Your task to perform on an android device: toggle improve location accuracy Image 0: 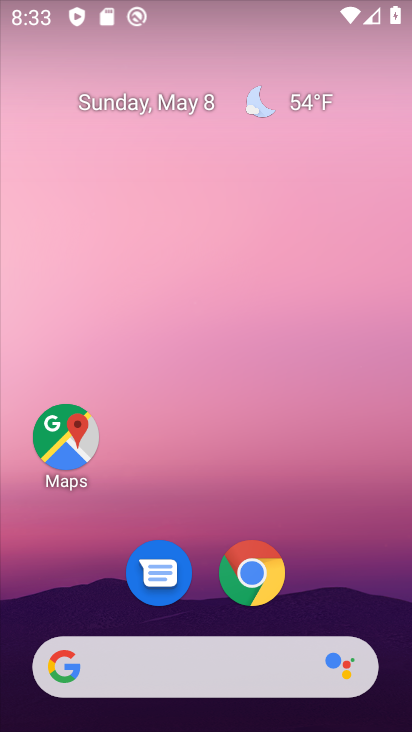
Step 0: drag from (211, 724) to (211, 168)
Your task to perform on an android device: toggle improve location accuracy Image 1: 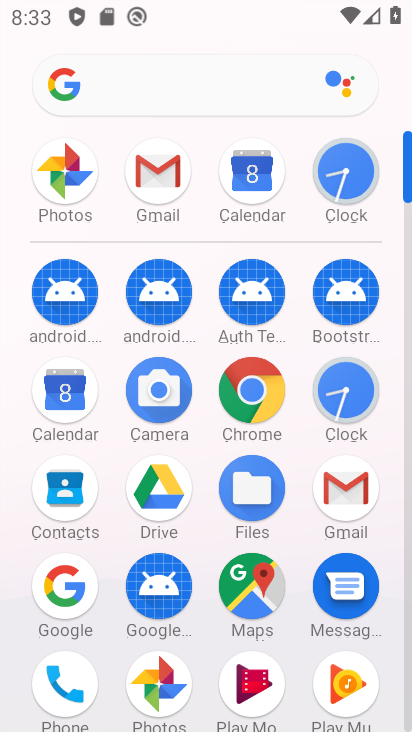
Step 1: drag from (113, 648) to (108, 242)
Your task to perform on an android device: toggle improve location accuracy Image 2: 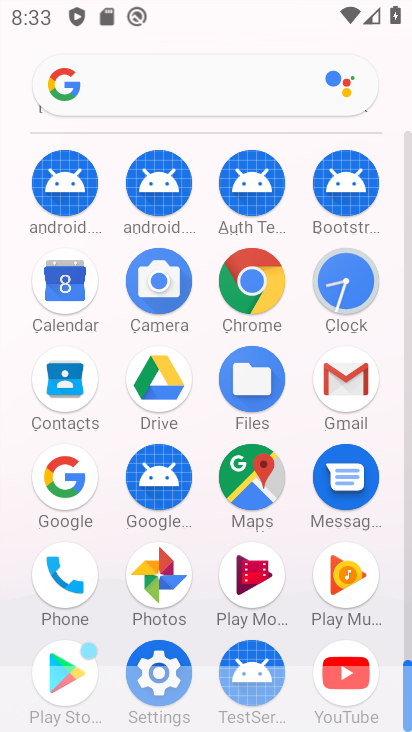
Step 2: click (144, 648)
Your task to perform on an android device: toggle improve location accuracy Image 3: 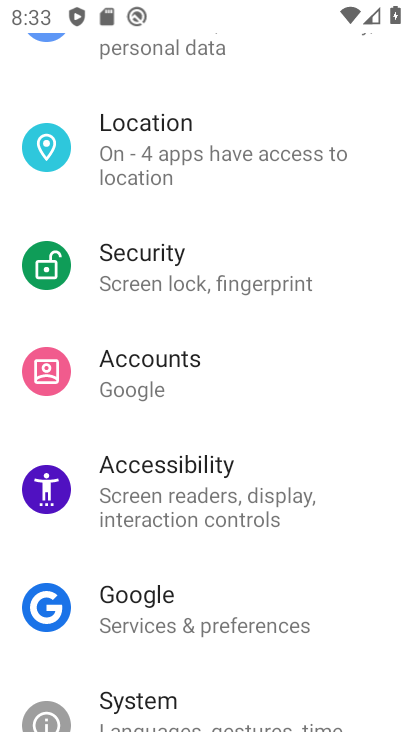
Step 3: drag from (157, 684) to (161, 567)
Your task to perform on an android device: toggle improve location accuracy Image 4: 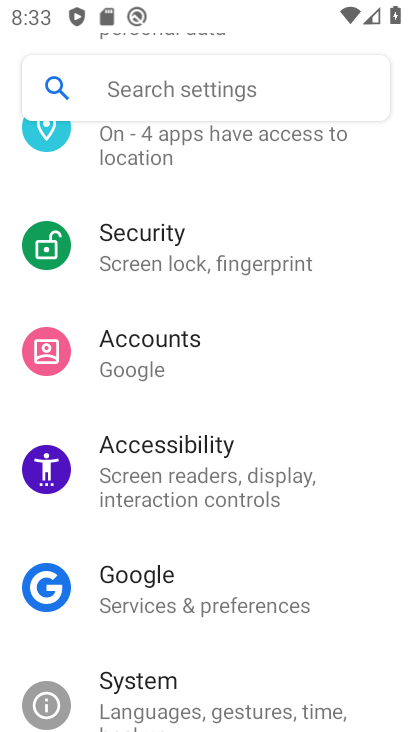
Step 4: drag from (204, 232) to (201, 392)
Your task to perform on an android device: toggle improve location accuracy Image 5: 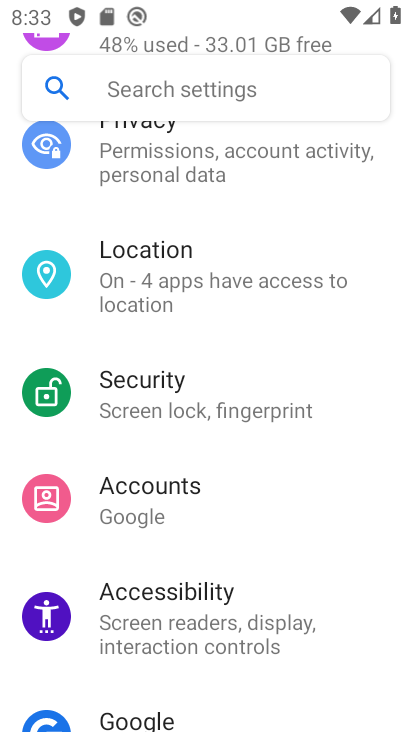
Step 5: click (159, 275)
Your task to perform on an android device: toggle improve location accuracy Image 6: 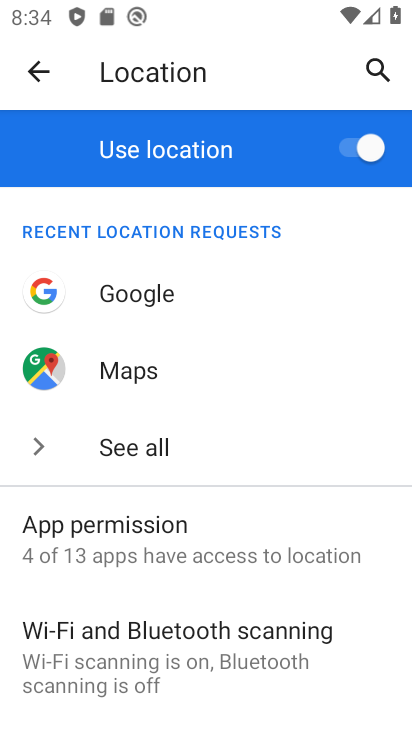
Step 6: drag from (277, 687) to (280, 337)
Your task to perform on an android device: toggle improve location accuracy Image 7: 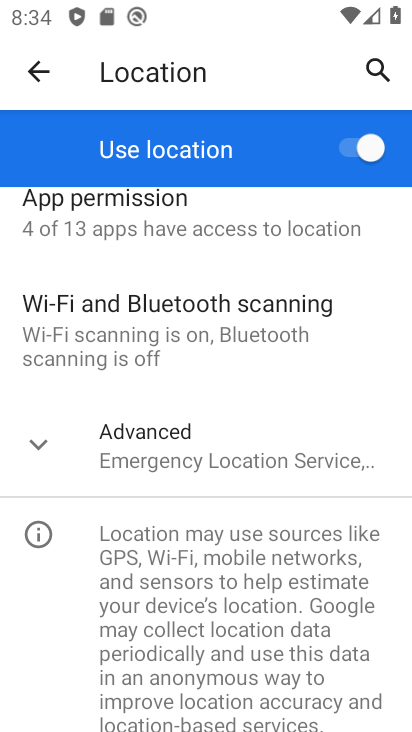
Step 7: click (170, 452)
Your task to perform on an android device: toggle improve location accuracy Image 8: 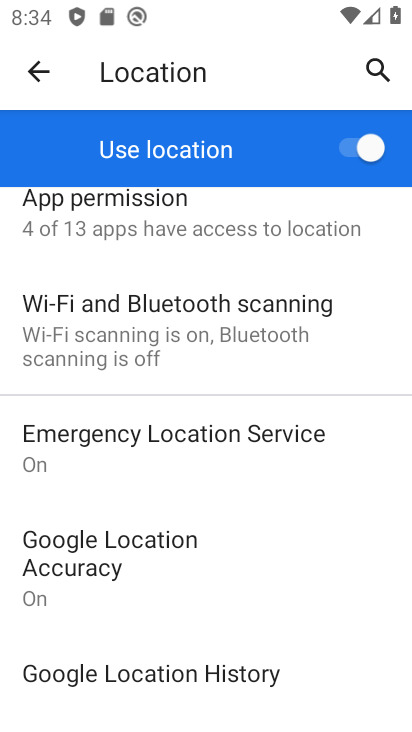
Step 8: click (68, 545)
Your task to perform on an android device: toggle improve location accuracy Image 9: 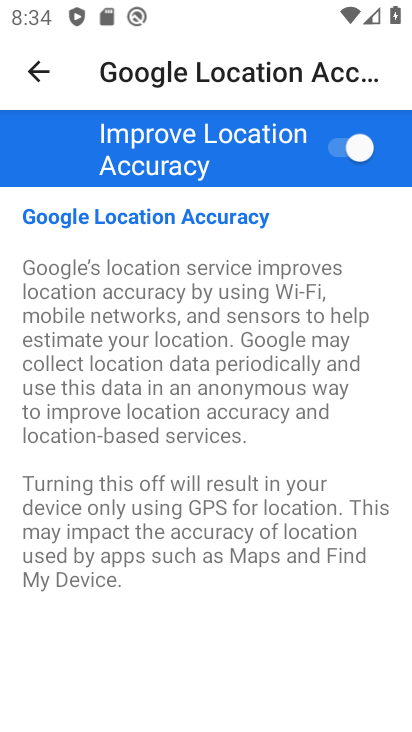
Step 9: click (337, 147)
Your task to perform on an android device: toggle improve location accuracy Image 10: 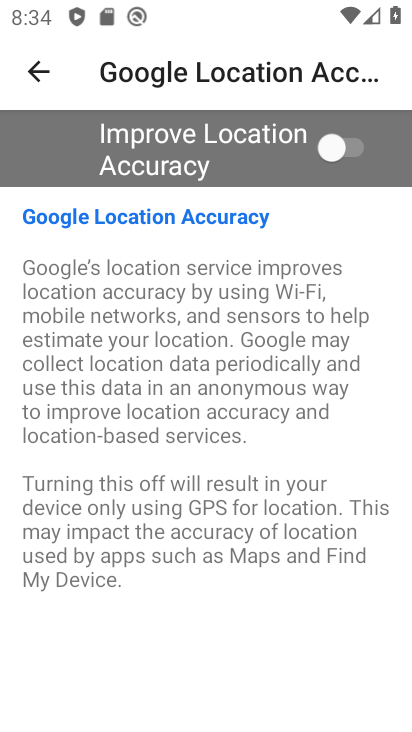
Step 10: task complete